Your task to perform on an android device: change the clock display to show seconds Image 0: 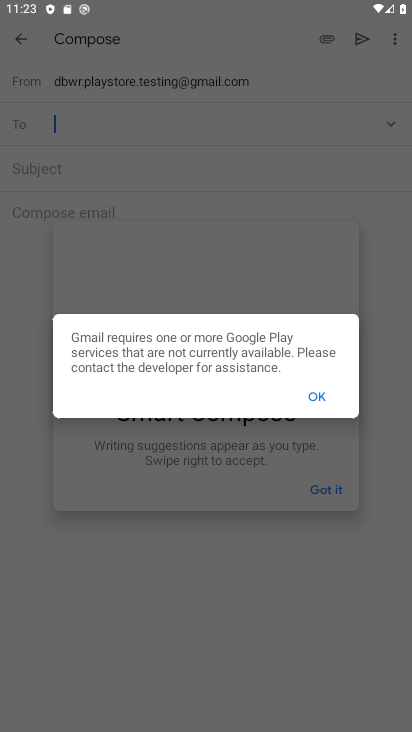
Step 0: press home button
Your task to perform on an android device: change the clock display to show seconds Image 1: 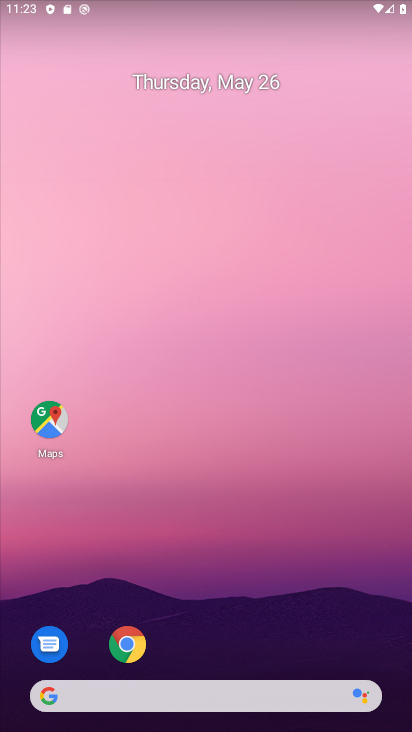
Step 1: drag from (222, 389) to (187, 15)
Your task to perform on an android device: change the clock display to show seconds Image 2: 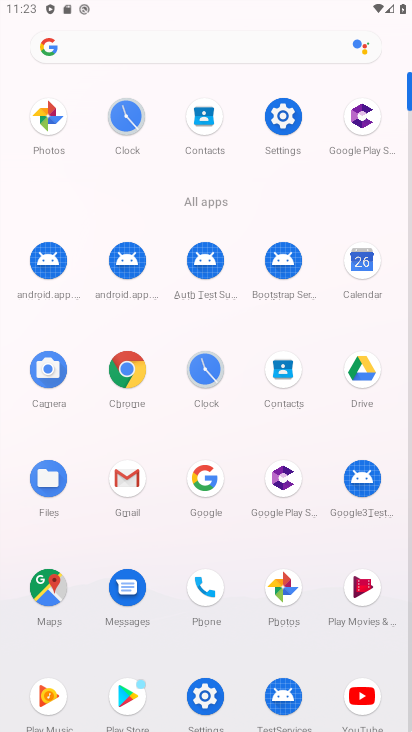
Step 2: click (128, 114)
Your task to perform on an android device: change the clock display to show seconds Image 3: 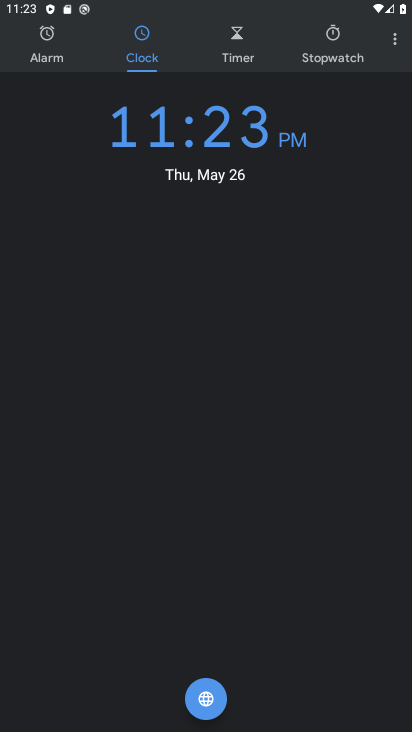
Step 3: click (401, 34)
Your task to perform on an android device: change the clock display to show seconds Image 4: 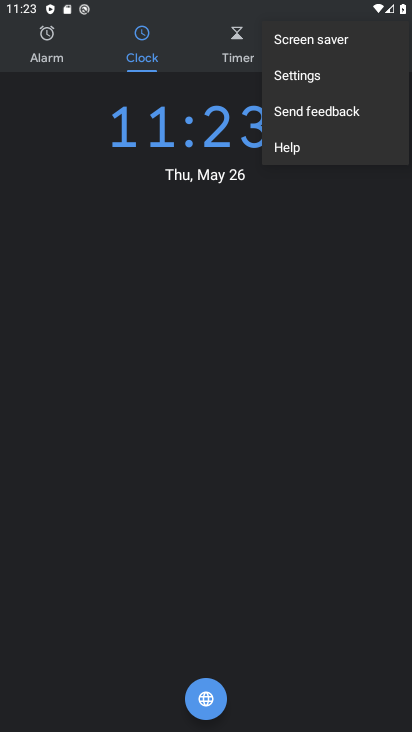
Step 4: click (295, 77)
Your task to perform on an android device: change the clock display to show seconds Image 5: 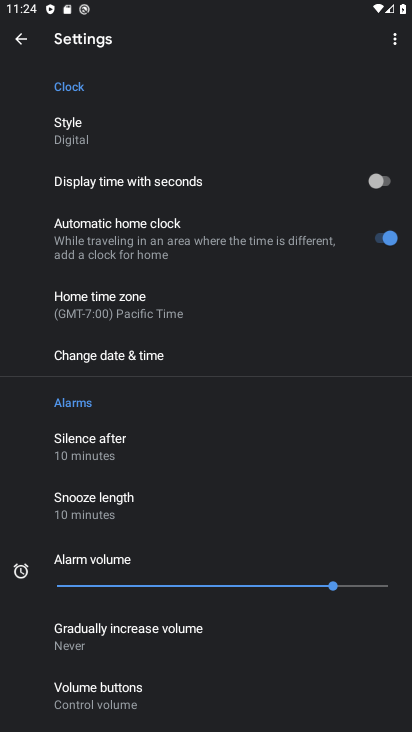
Step 5: click (378, 176)
Your task to perform on an android device: change the clock display to show seconds Image 6: 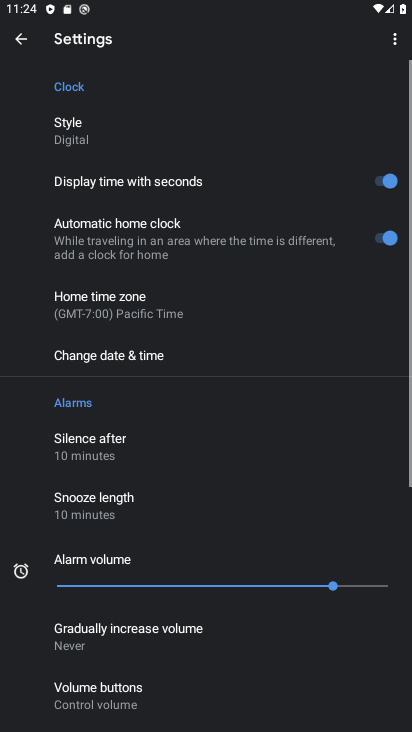
Step 6: task complete